Your task to perform on an android device: open chrome and create a bookmark for the current page Image 0: 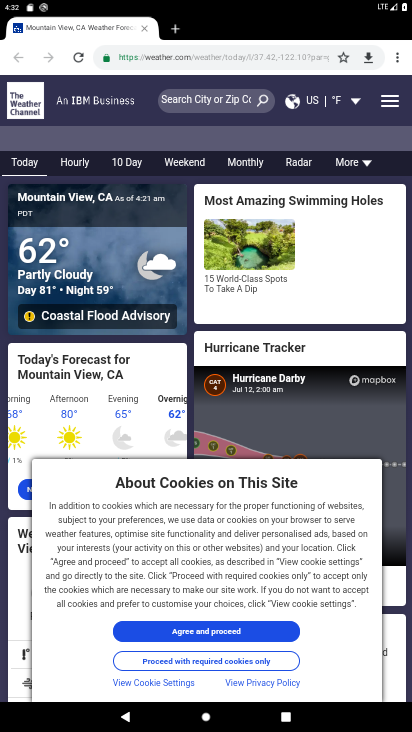
Step 0: press home button
Your task to perform on an android device: open chrome and create a bookmark for the current page Image 1: 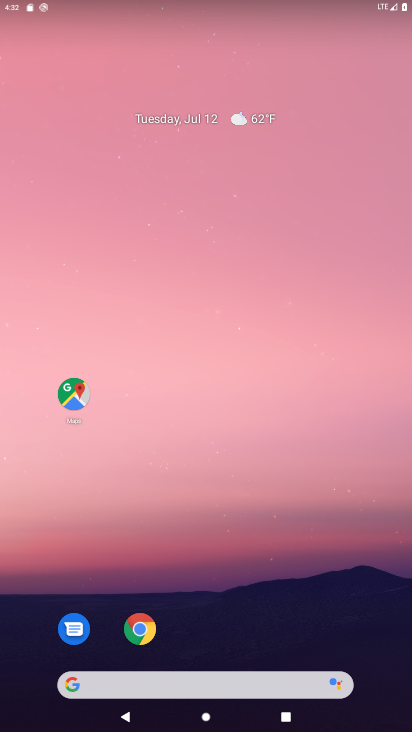
Step 1: drag from (358, 628) to (352, 81)
Your task to perform on an android device: open chrome and create a bookmark for the current page Image 2: 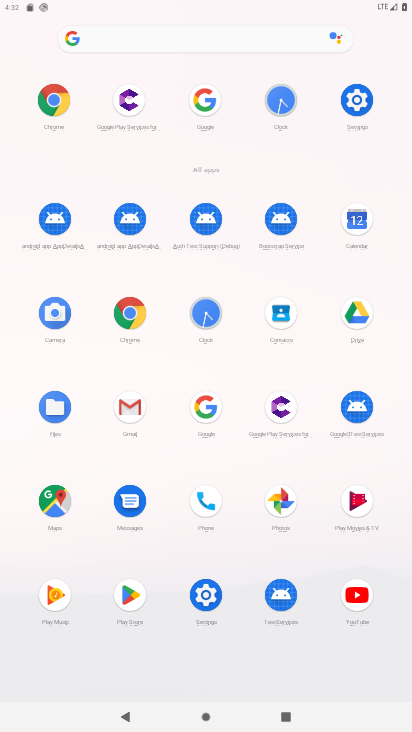
Step 2: click (54, 92)
Your task to perform on an android device: open chrome and create a bookmark for the current page Image 3: 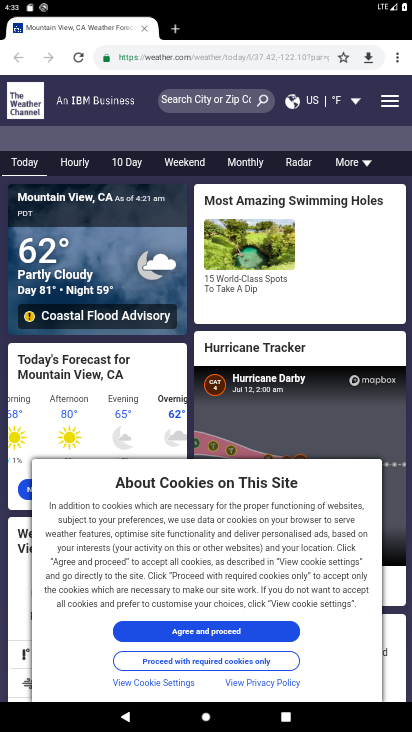
Step 3: drag from (397, 61) to (296, 128)
Your task to perform on an android device: open chrome and create a bookmark for the current page Image 4: 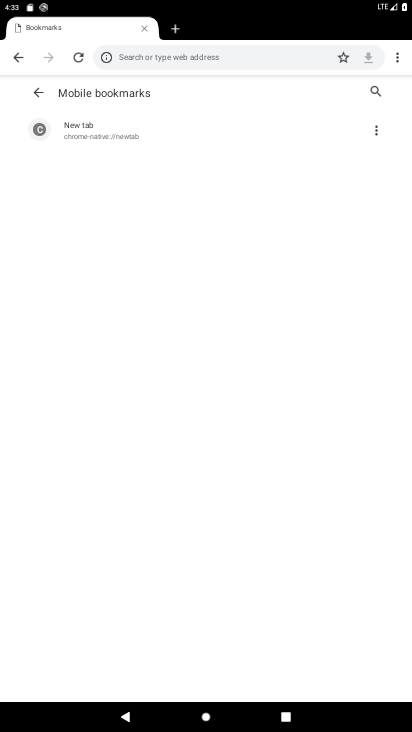
Step 4: click (339, 58)
Your task to perform on an android device: open chrome and create a bookmark for the current page Image 5: 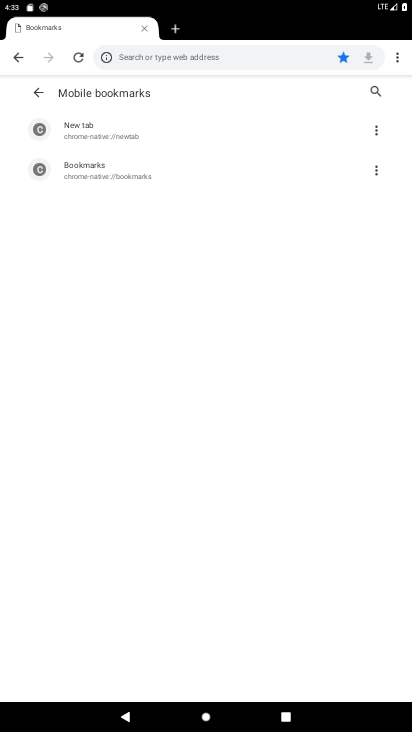
Step 5: task complete